Your task to perform on an android device: Open Google Chrome and click the shortcut for Amazon.com Image 0: 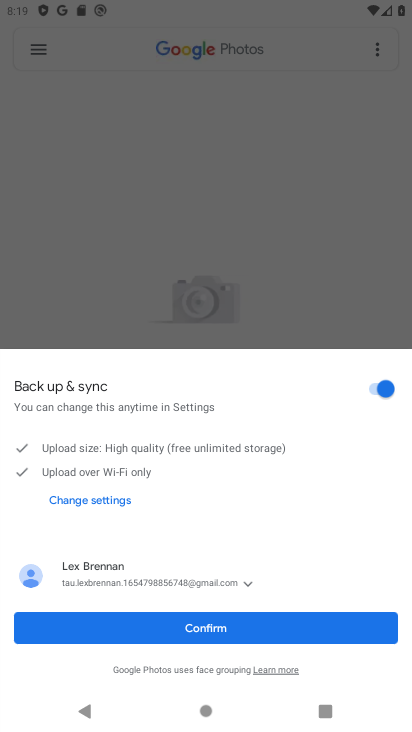
Step 0: click (226, 212)
Your task to perform on an android device: Open Google Chrome and click the shortcut for Amazon.com Image 1: 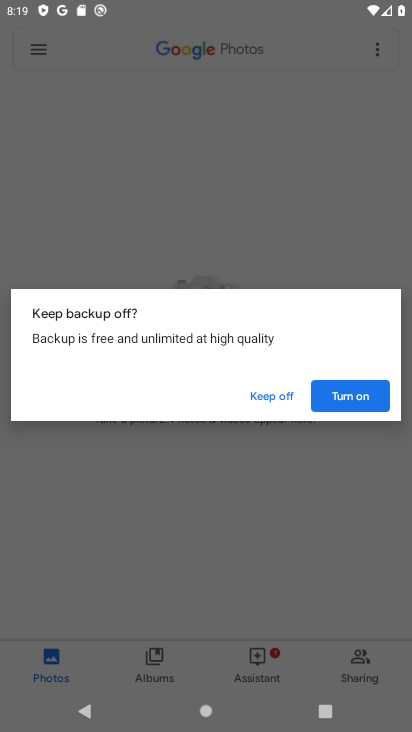
Step 1: click (312, 228)
Your task to perform on an android device: Open Google Chrome and click the shortcut for Amazon.com Image 2: 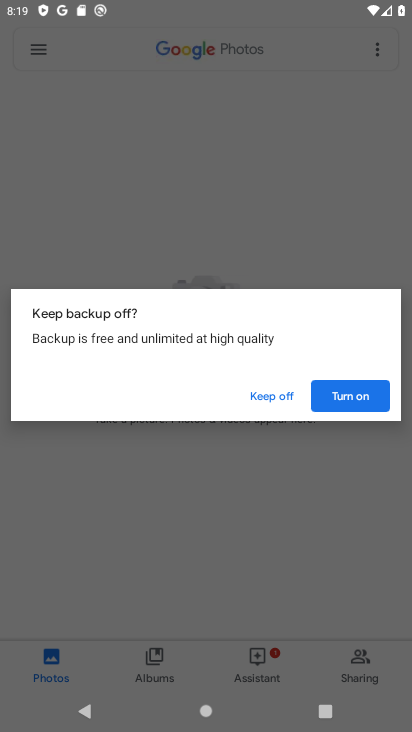
Step 2: click (312, 228)
Your task to perform on an android device: Open Google Chrome and click the shortcut for Amazon.com Image 3: 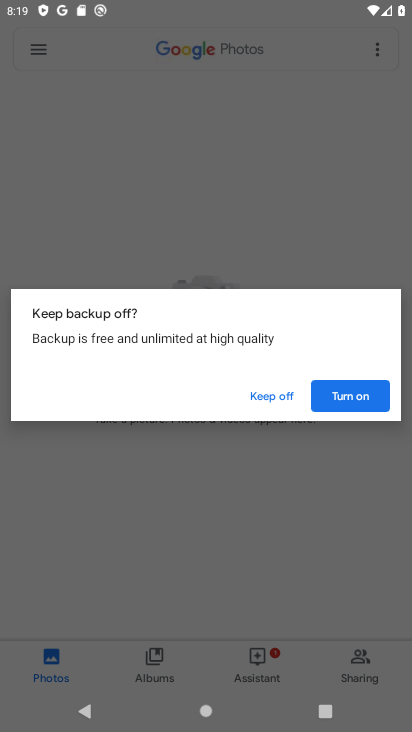
Step 3: click (312, 228)
Your task to perform on an android device: Open Google Chrome and click the shortcut for Amazon.com Image 4: 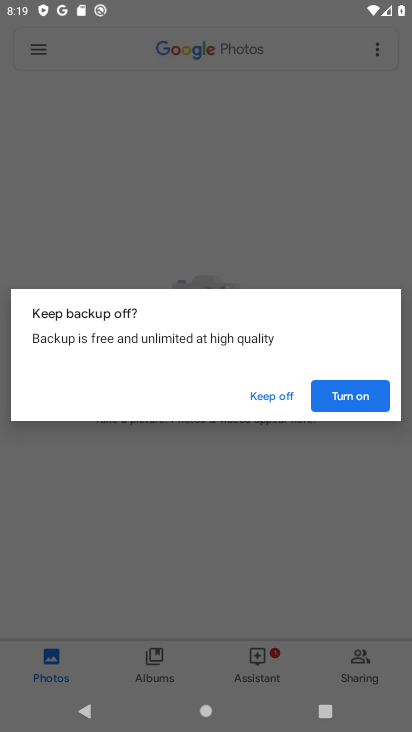
Step 4: click (259, 401)
Your task to perform on an android device: Open Google Chrome and click the shortcut for Amazon.com Image 5: 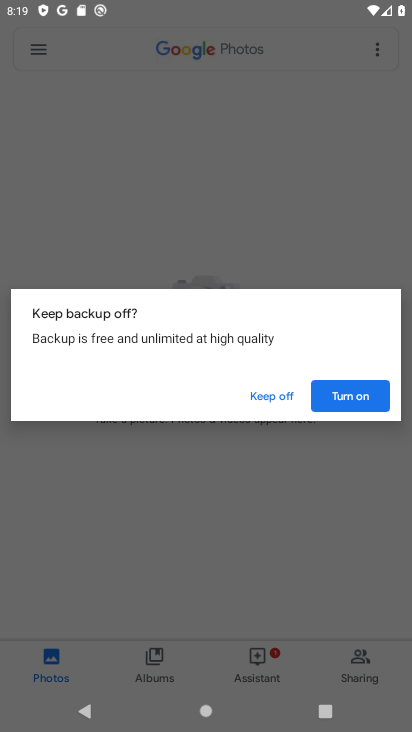
Step 5: click (273, 394)
Your task to perform on an android device: Open Google Chrome and click the shortcut for Amazon.com Image 6: 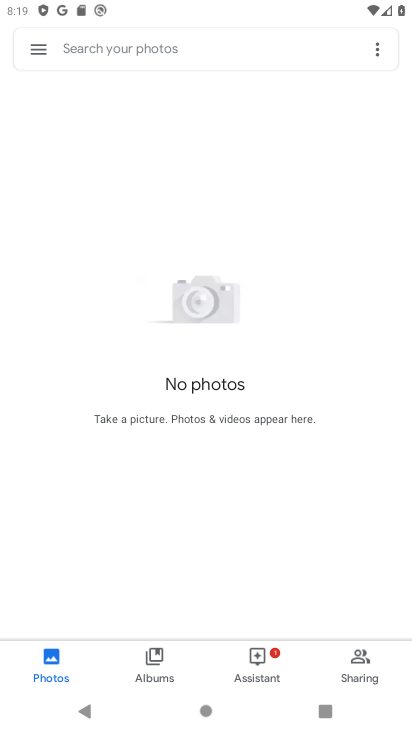
Step 6: press back button
Your task to perform on an android device: Open Google Chrome and click the shortcut for Amazon.com Image 7: 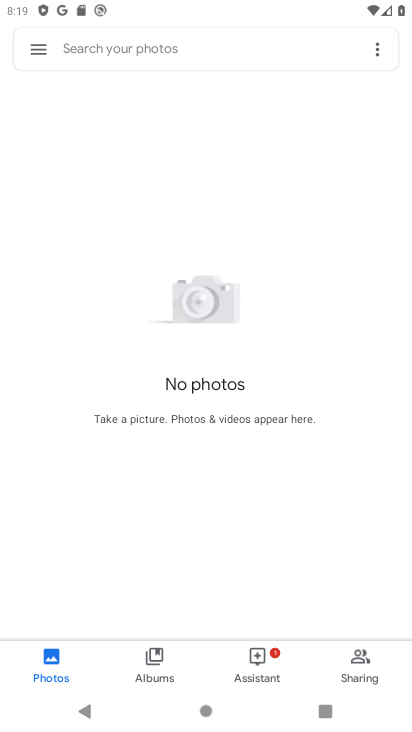
Step 7: press back button
Your task to perform on an android device: Open Google Chrome and click the shortcut for Amazon.com Image 8: 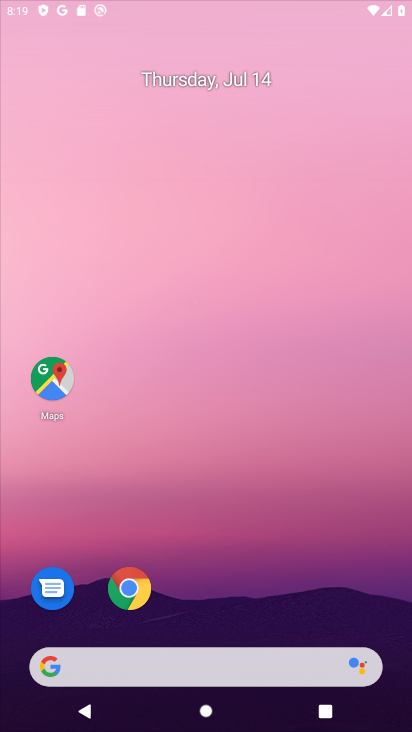
Step 8: press back button
Your task to perform on an android device: Open Google Chrome and click the shortcut for Amazon.com Image 9: 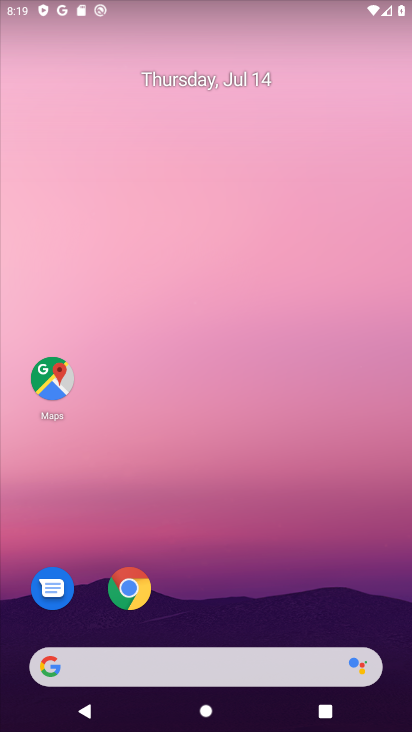
Step 9: drag from (235, 614) to (158, 251)
Your task to perform on an android device: Open Google Chrome and click the shortcut for Amazon.com Image 10: 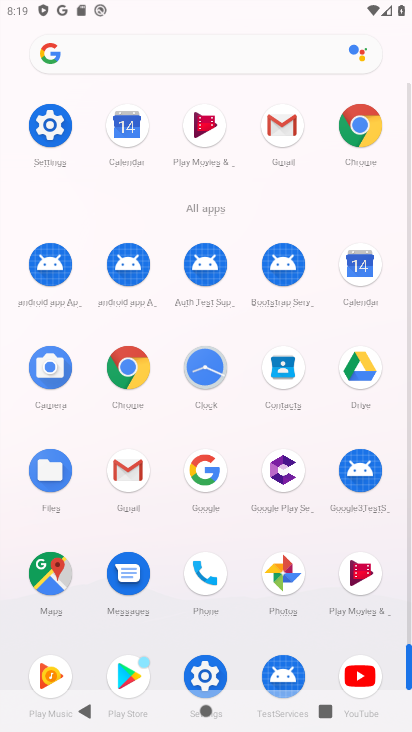
Step 10: click (371, 125)
Your task to perform on an android device: Open Google Chrome and click the shortcut for Amazon.com Image 11: 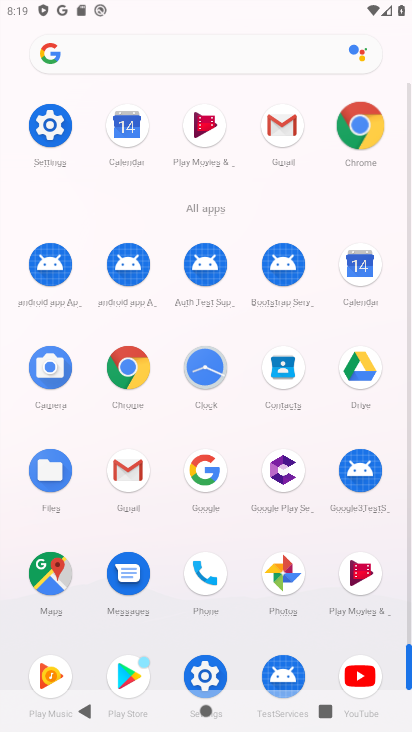
Step 11: click (374, 126)
Your task to perform on an android device: Open Google Chrome and click the shortcut for Amazon.com Image 12: 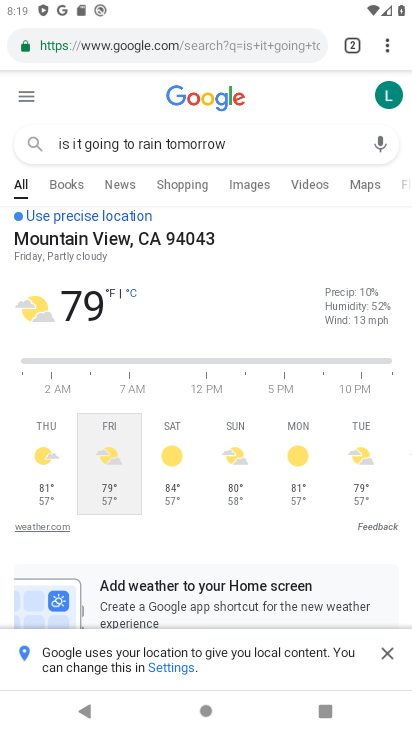
Step 12: drag from (387, 48) to (220, 88)
Your task to perform on an android device: Open Google Chrome and click the shortcut for Amazon.com Image 13: 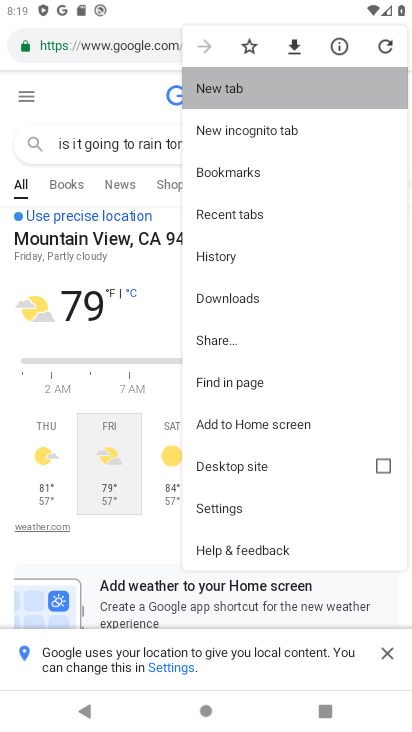
Step 13: click (220, 88)
Your task to perform on an android device: Open Google Chrome and click the shortcut for Amazon.com Image 14: 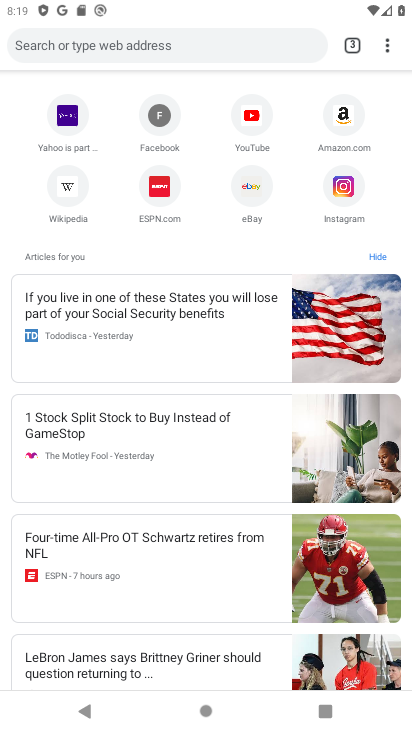
Step 14: click (327, 111)
Your task to perform on an android device: Open Google Chrome and click the shortcut for Amazon.com Image 15: 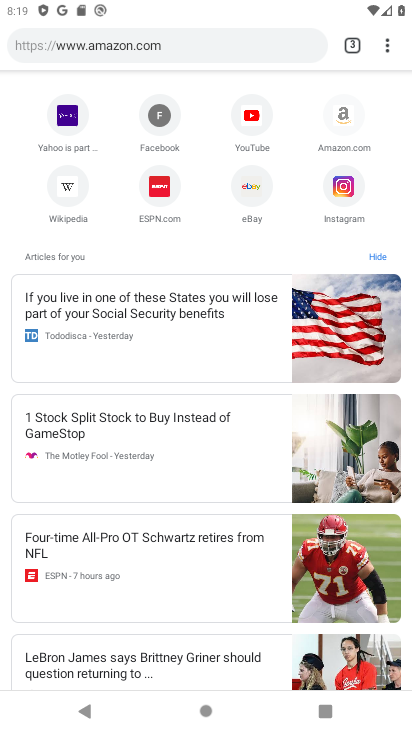
Step 15: click (333, 116)
Your task to perform on an android device: Open Google Chrome and click the shortcut for Amazon.com Image 16: 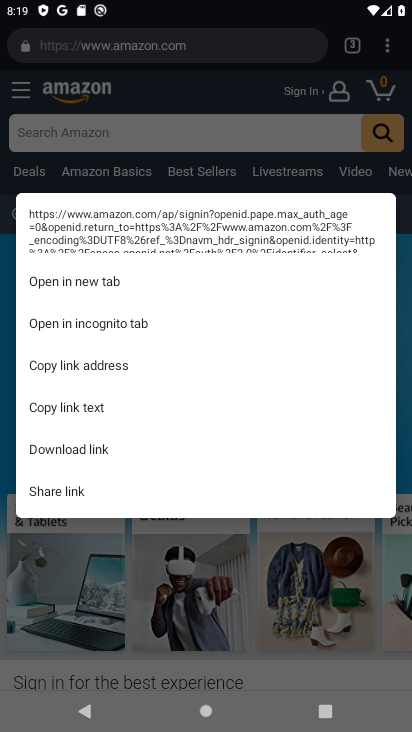
Step 16: task complete